Your task to perform on an android device: Turn off the flashlight Image 0: 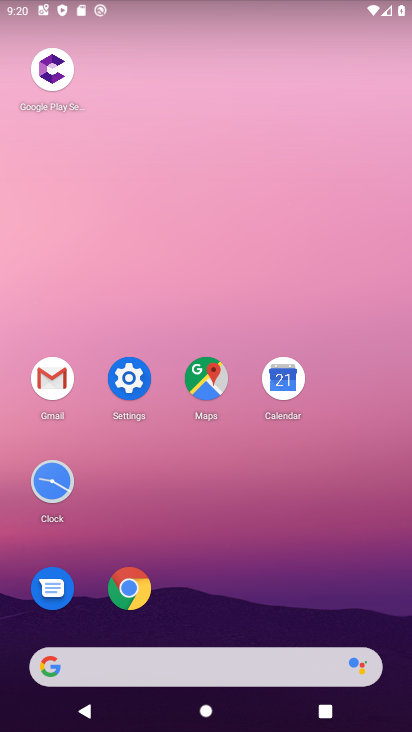
Step 0: click (121, 377)
Your task to perform on an android device: Turn off the flashlight Image 1: 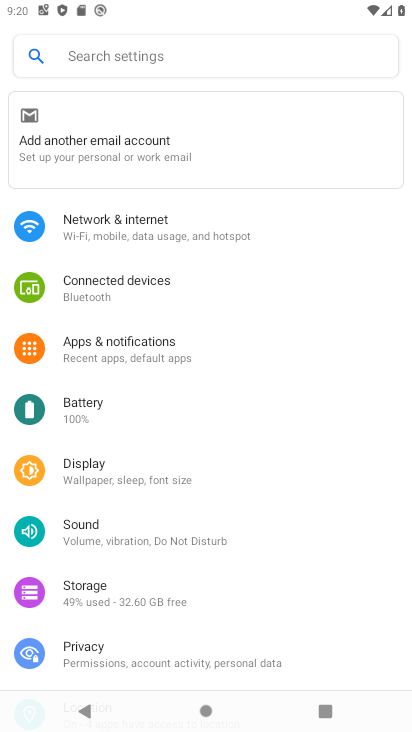
Step 1: click (52, 473)
Your task to perform on an android device: Turn off the flashlight Image 2: 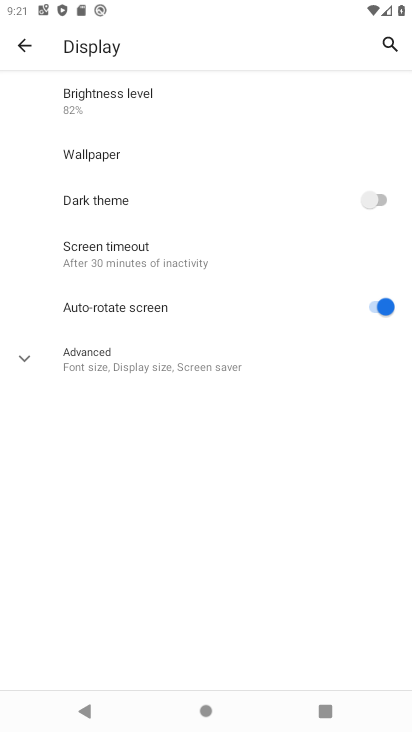
Step 2: click (98, 202)
Your task to perform on an android device: Turn off the flashlight Image 3: 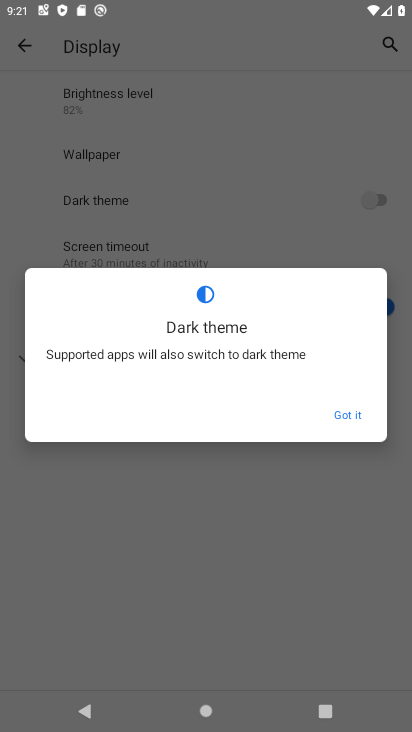
Step 3: task complete